Your task to perform on an android device: toggle javascript in the chrome app Image 0: 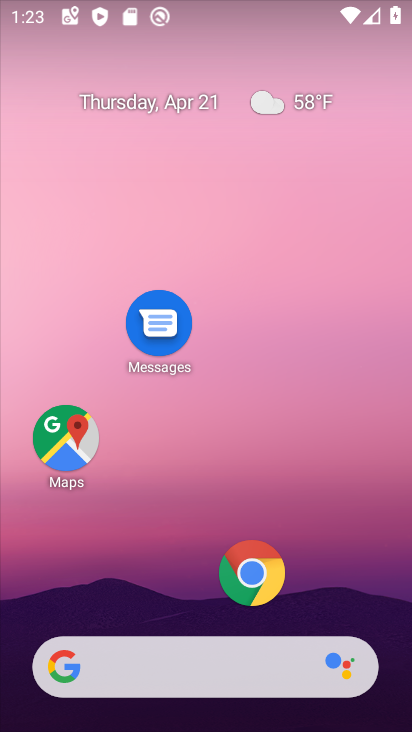
Step 0: click (255, 572)
Your task to perform on an android device: toggle javascript in the chrome app Image 1: 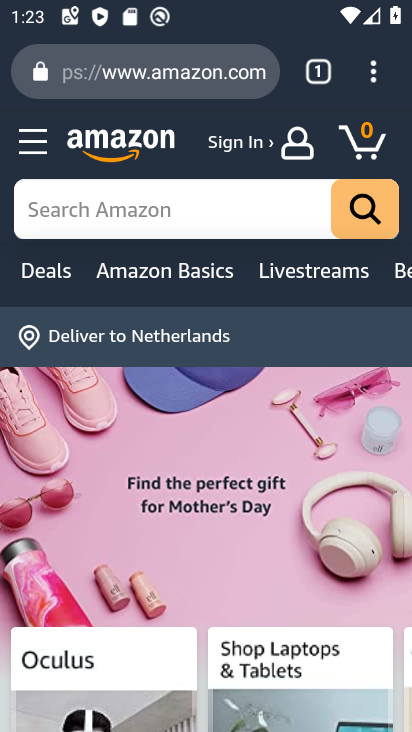
Step 1: click (370, 77)
Your task to perform on an android device: toggle javascript in the chrome app Image 2: 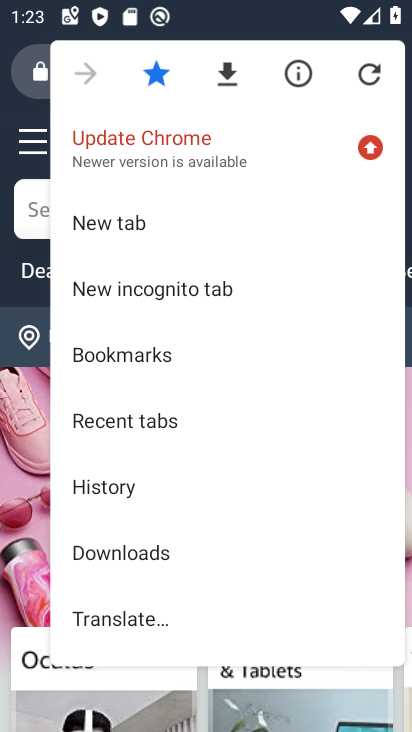
Step 2: drag from (195, 553) to (211, 356)
Your task to perform on an android device: toggle javascript in the chrome app Image 3: 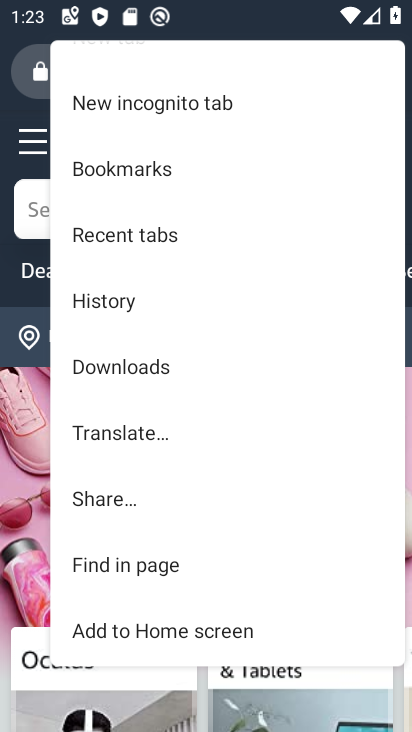
Step 3: drag from (214, 569) to (225, 278)
Your task to perform on an android device: toggle javascript in the chrome app Image 4: 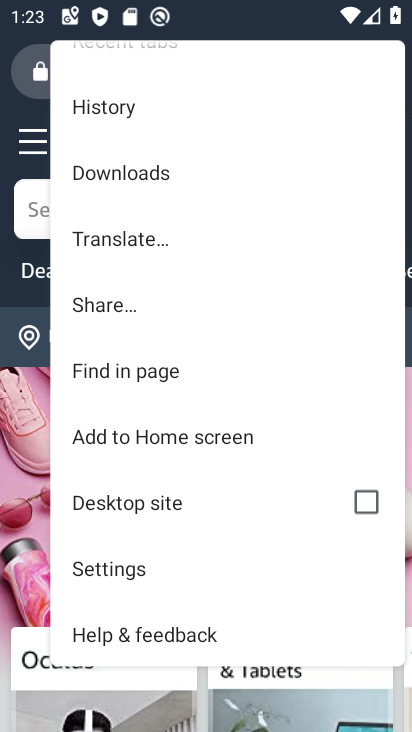
Step 4: click (132, 573)
Your task to perform on an android device: toggle javascript in the chrome app Image 5: 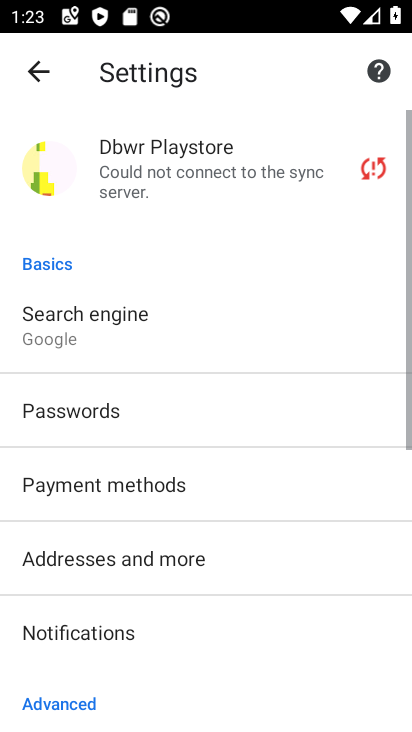
Step 5: drag from (135, 555) to (202, 187)
Your task to perform on an android device: toggle javascript in the chrome app Image 6: 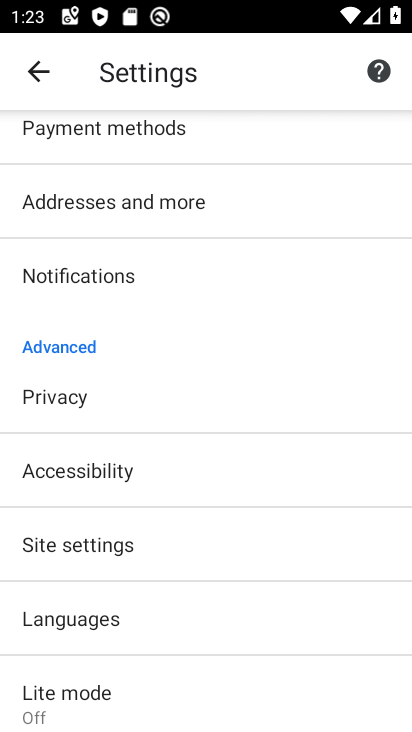
Step 6: click (105, 540)
Your task to perform on an android device: toggle javascript in the chrome app Image 7: 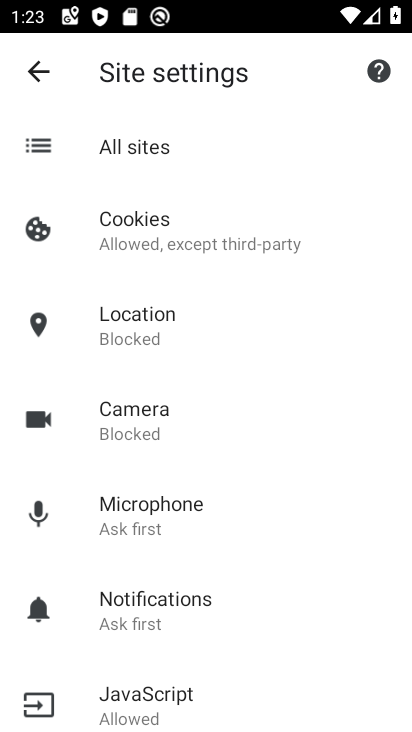
Step 7: click (153, 706)
Your task to perform on an android device: toggle javascript in the chrome app Image 8: 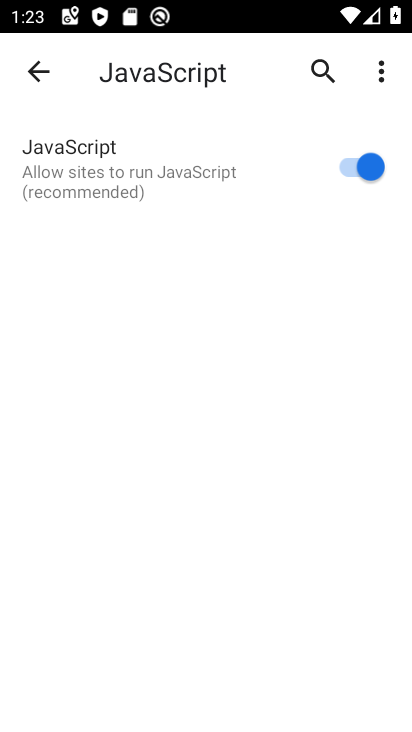
Step 8: click (348, 167)
Your task to perform on an android device: toggle javascript in the chrome app Image 9: 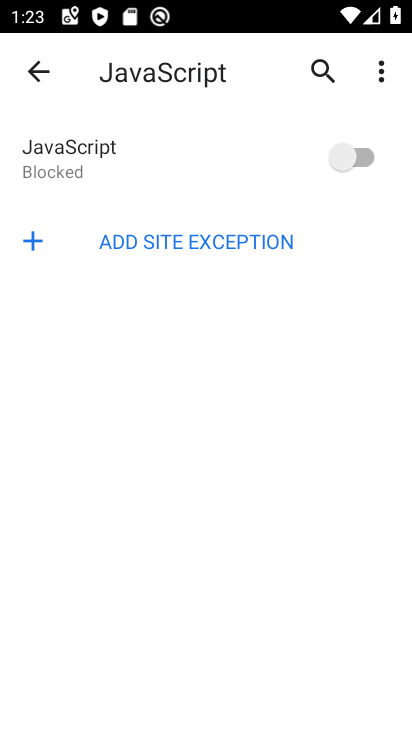
Step 9: task complete